Your task to perform on an android device: add a contact in the contacts app Image 0: 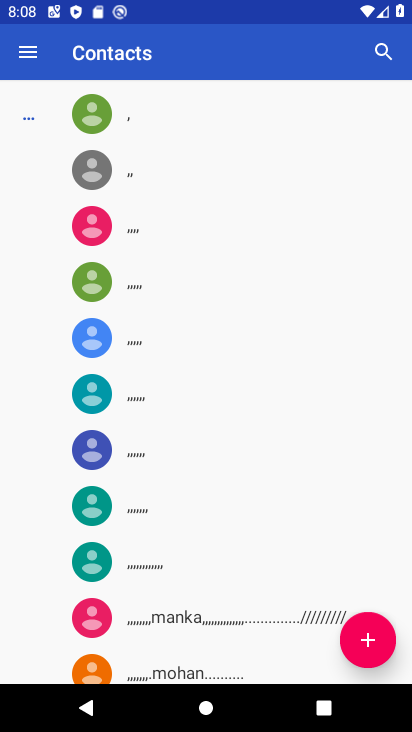
Step 0: click (352, 645)
Your task to perform on an android device: add a contact in the contacts app Image 1: 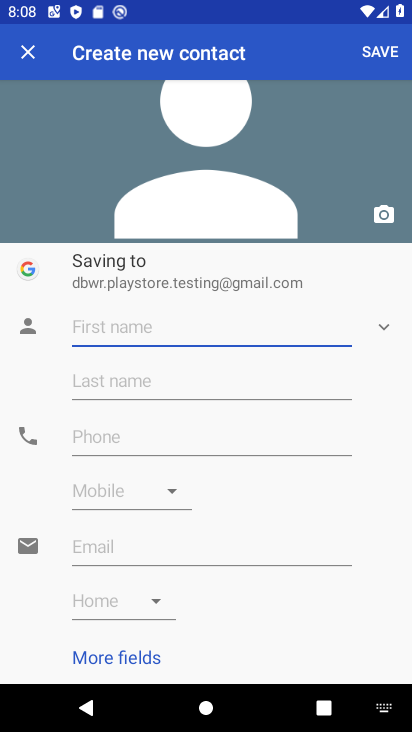
Step 1: type ",,,,,,,,,,"
Your task to perform on an android device: add a contact in the contacts app Image 2: 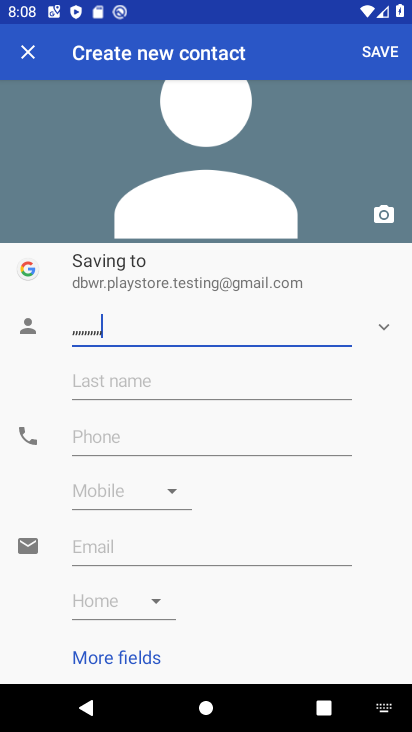
Step 2: click (203, 456)
Your task to perform on an android device: add a contact in the contacts app Image 3: 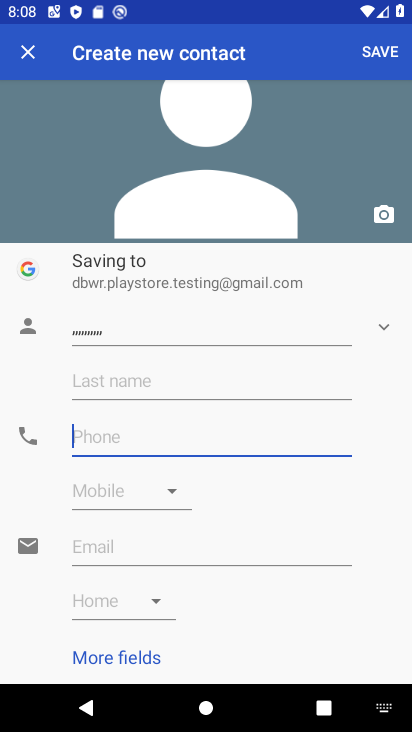
Step 3: click (193, 447)
Your task to perform on an android device: add a contact in the contacts app Image 4: 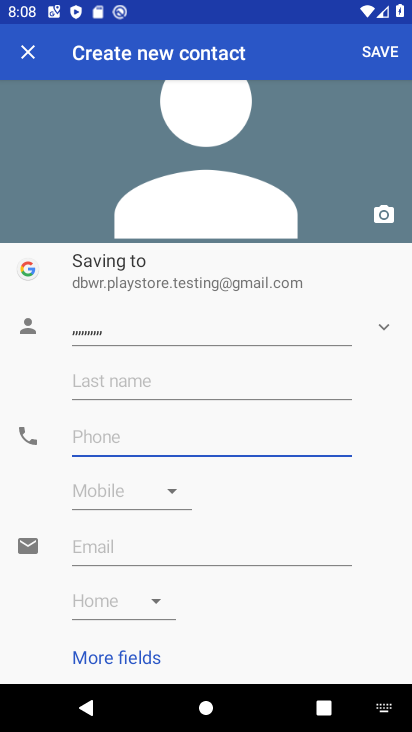
Step 4: type "67890987654"
Your task to perform on an android device: add a contact in the contacts app Image 5: 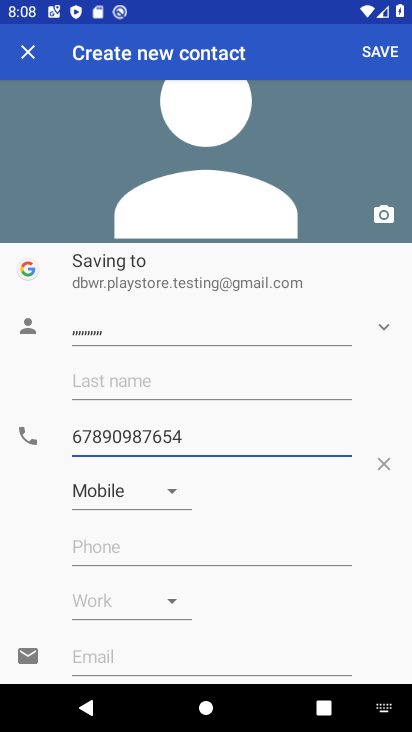
Step 5: click (396, 61)
Your task to perform on an android device: add a contact in the contacts app Image 6: 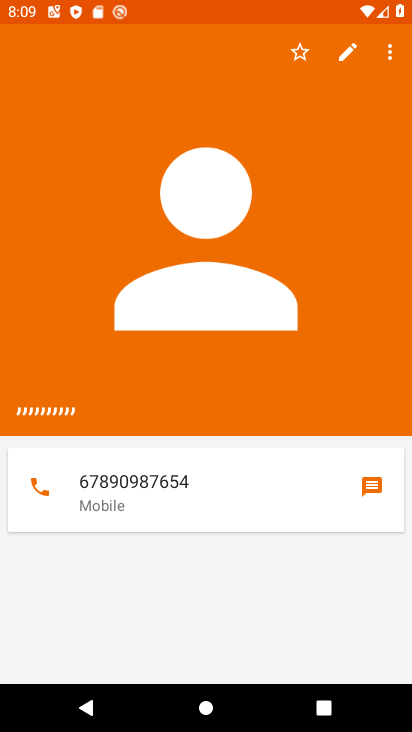
Step 6: task complete